Your task to perform on an android device: open app "PlayWell" (install if not already installed) and enter user name: "metric@gmail.com" and password: "bumblebee" Image 0: 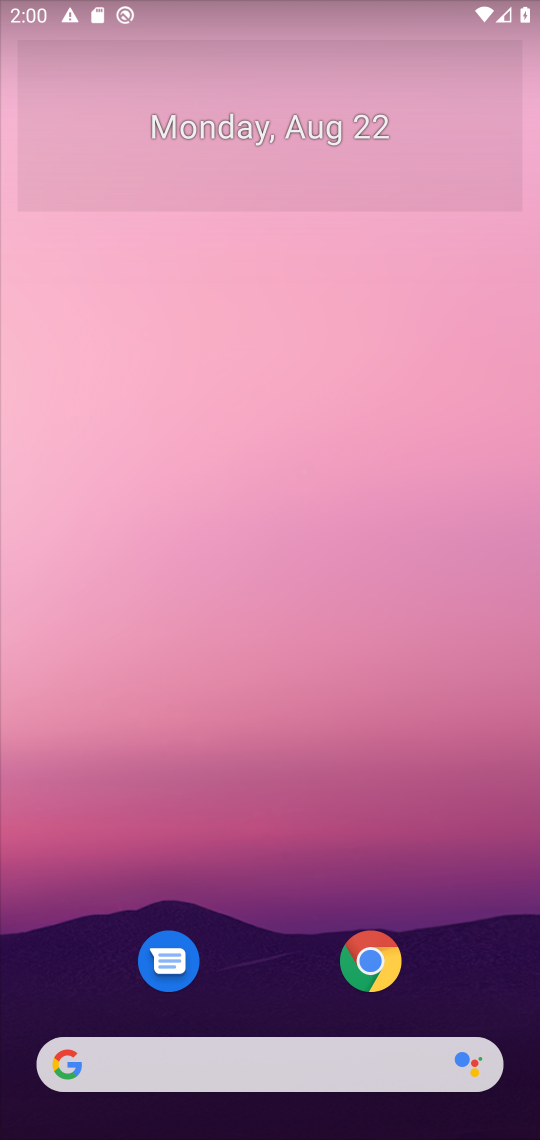
Step 0: press home button
Your task to perform on an android device: open app "PlayWell" (install if not already installed) and enter user name: "metric@gmail.com" and password: "bumblebee" Image 1: 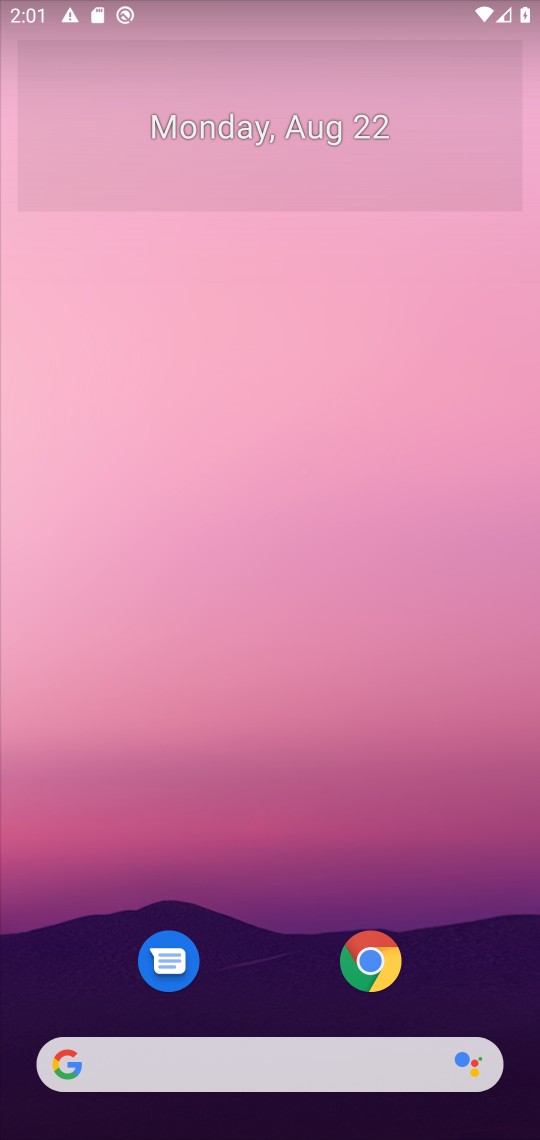
Step 1: drag from (474, 977) to (486, 109)
Your task to perform on an android device: open app "PlayWell" (install if not already installed) and enter user name: "metric@gmail.com" and password: "bumblebee" Image 2: 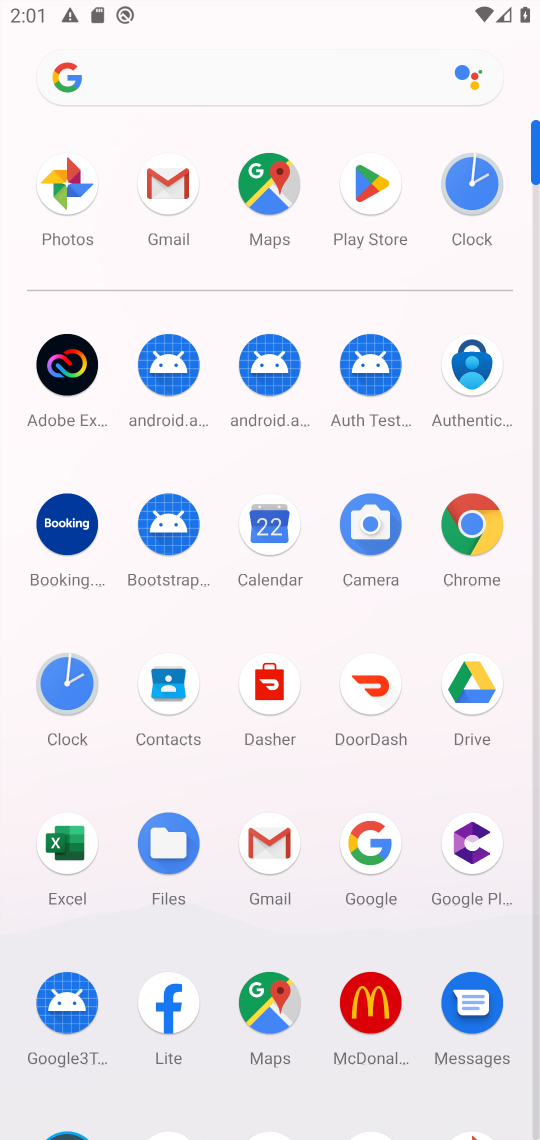
Step 2: click (364, 176)
Your task to perform on an android device: open app "PlayWell" (install if not already installed) and enter user name: "metric@gmail.com" and password: "bumblebee" Image 3: 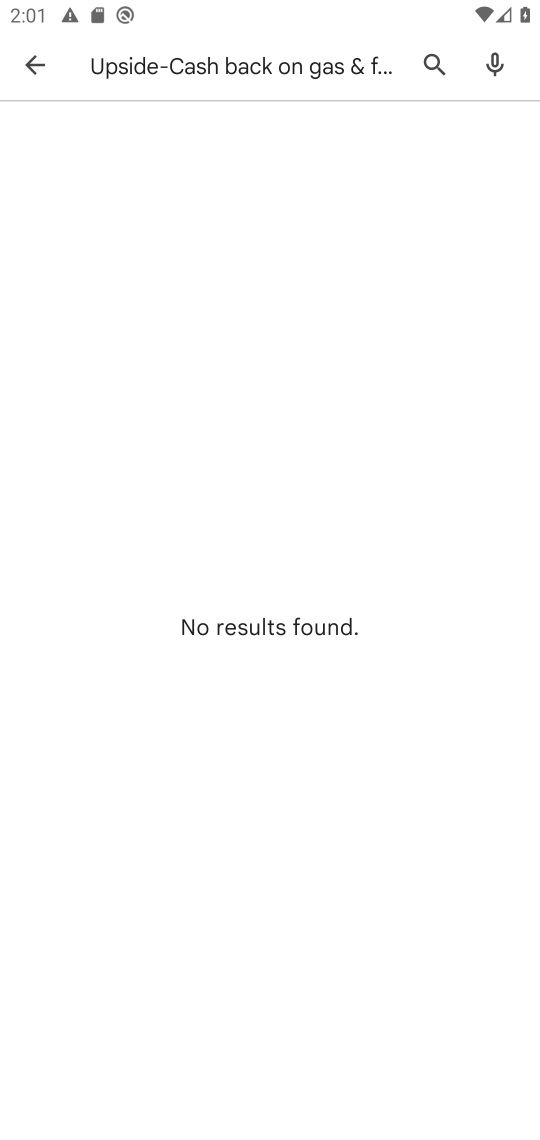
Step 3: press back button
Your task to perform on an android device: open app "PlayWell" (install if not already installed) and enter user name: "metric@gmail.com" and password: "bumblebee" Image 4: 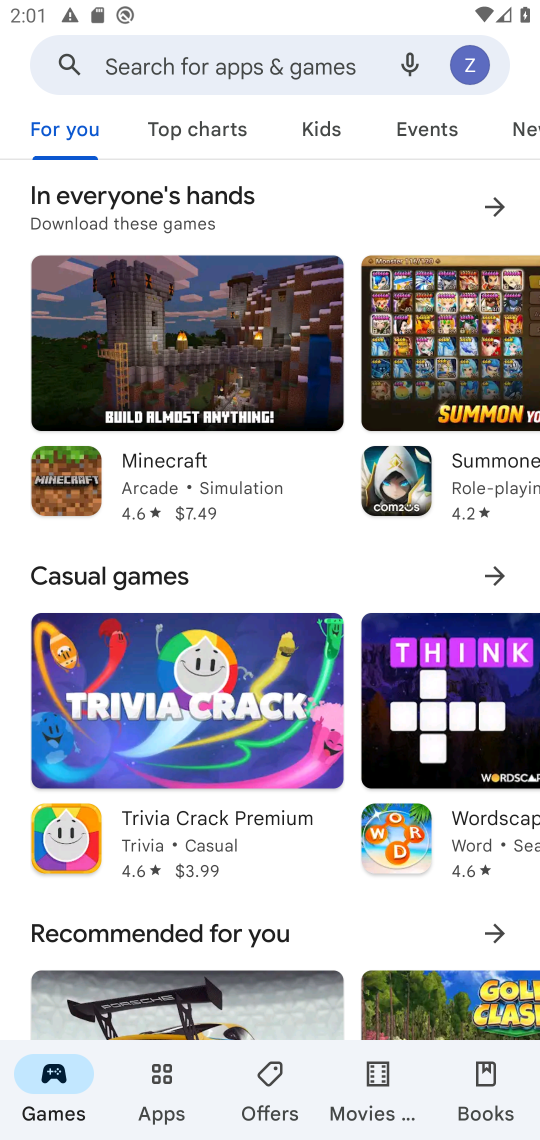
Step 4: click (286, 67)
Your task to perform on an android device: open app "PlayWell" (install if not already installed) and enter user name: "metric@gmail.com" and password: "bumblebee" Image 5: 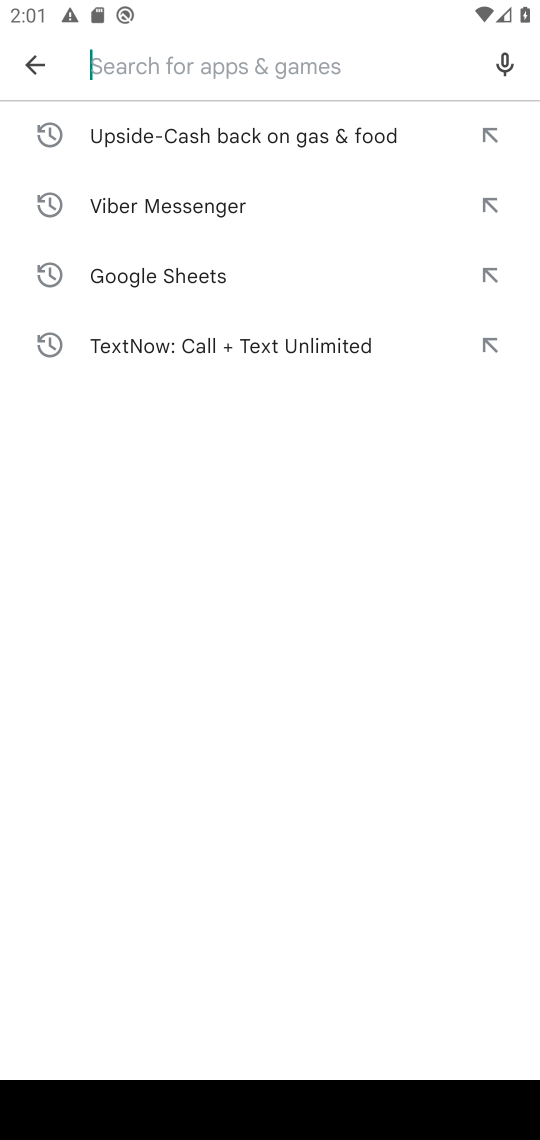
Step 5: type "play well"
Your task to perform on an android device: open app "PlayWell" (install if not already installed) and enter user name: "metric@gmail.com" and password: "bumblebee" Image 6: 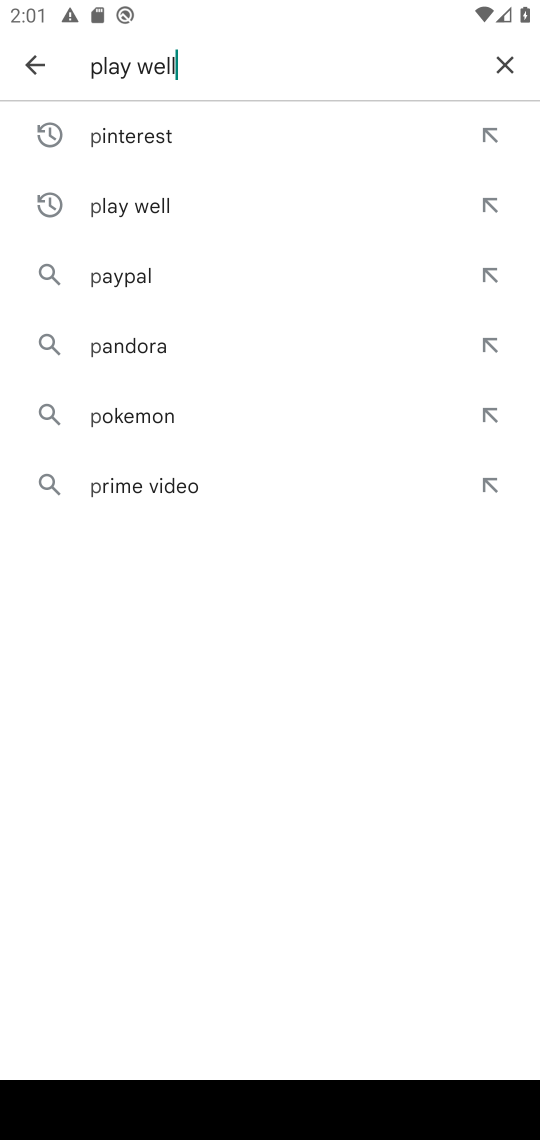
Step 6: press enter
Your task to perform on an android device: open app "PlayWell" (install if not already installed) and enter user name: "metric@gmail.com" and password: "bumblebee" Image 7: 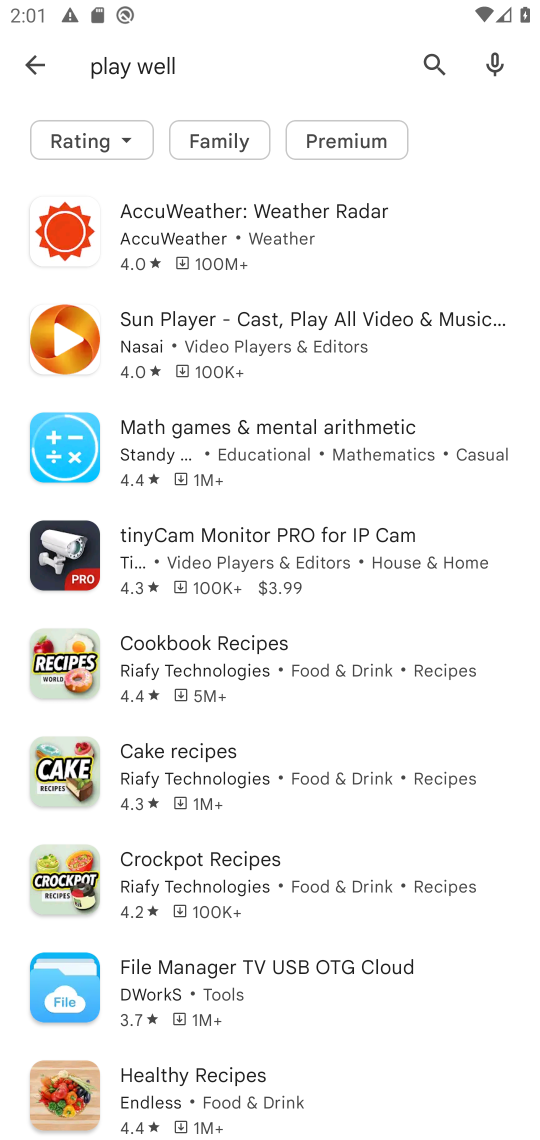
Step 7: task complete